Your task to perform on an android device: change the clock display to show seconds Image 0: 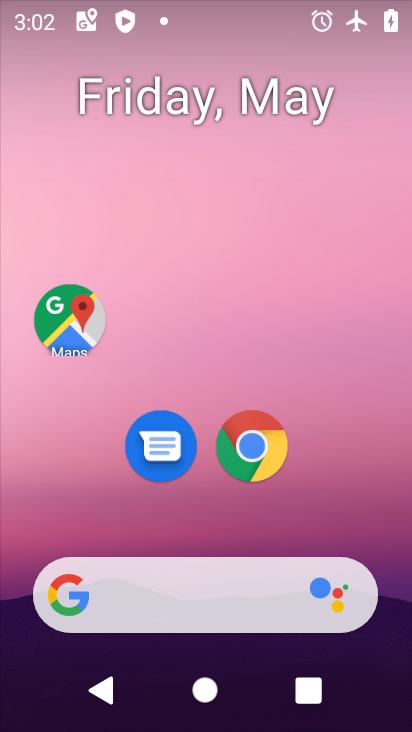
Step 0: drag from (401, 573) to (349, 187)
Your task to perform on an android device: change the clock display to show seconds Image 1: 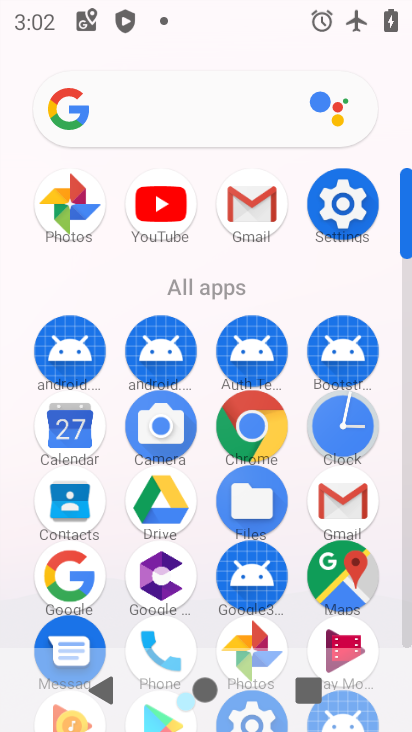
Step 1: click (361, 417)
Your task to perform on an android device: change the clock display to show seconds Image 2: 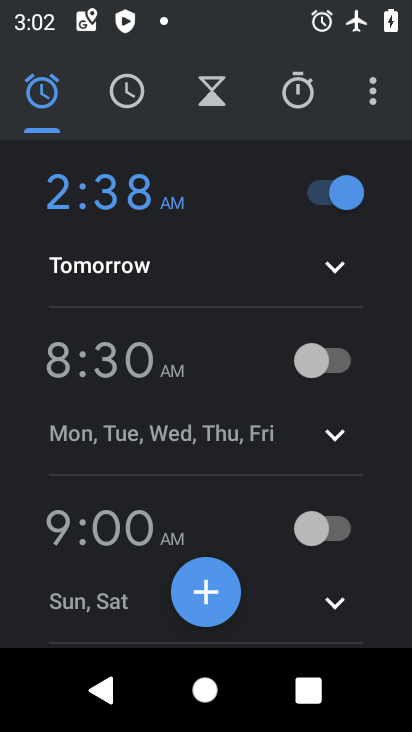
Step 2: click (363, 106)
Your task to perform on an android device: change the clock display to show seconds Image 3: 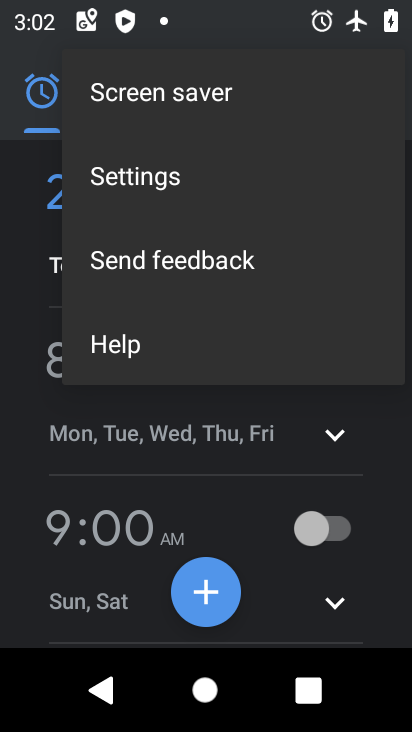
Step 3: click (201, 187)
Your task to perform on an android device: change the clock display to show seconds Image 4: 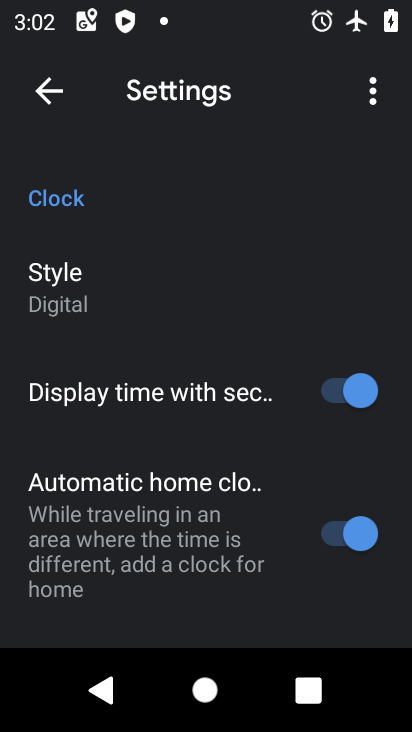
Step 4: task complete